Your task to perform on an android device: manage bookmarks in the chrome app Image 0: 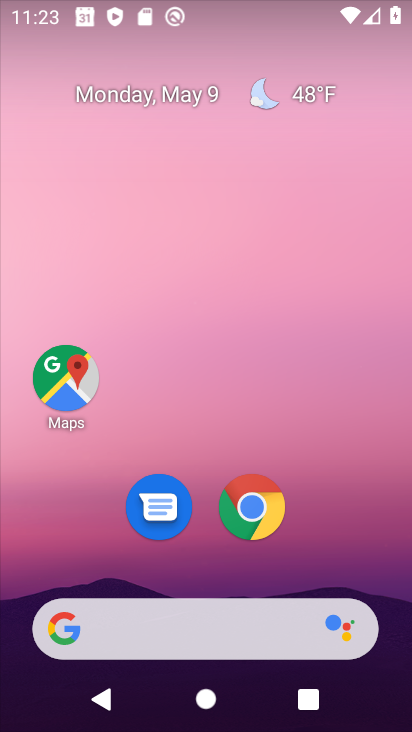
Step 0: click (261, 509)
Your task to perform on an android device: manage bookmarks in the chrome app Image 1: 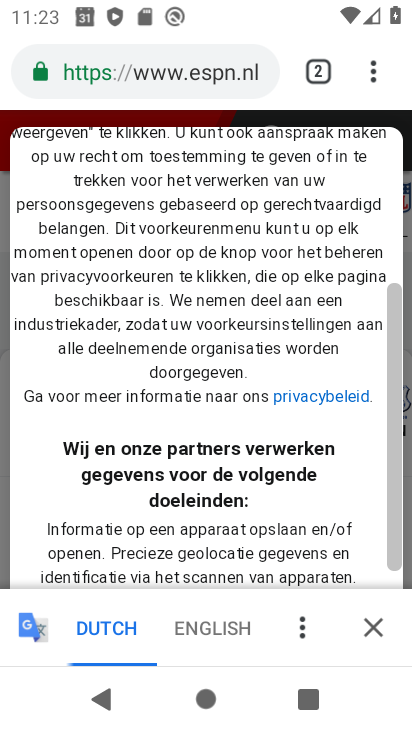
Step 1: click (381, 69)
Your task to perform on an android device: manage bookmarks in the chrome app Image 2: 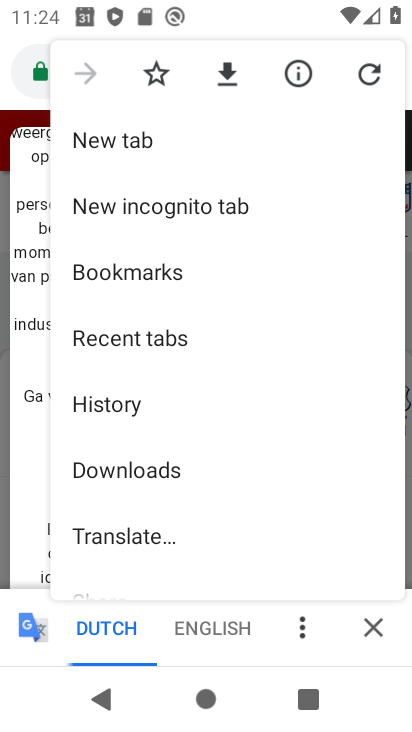
Step 2: click (137, 273)
Your task to perform on an android device: manage bookmarks in the chrome app Image 3: 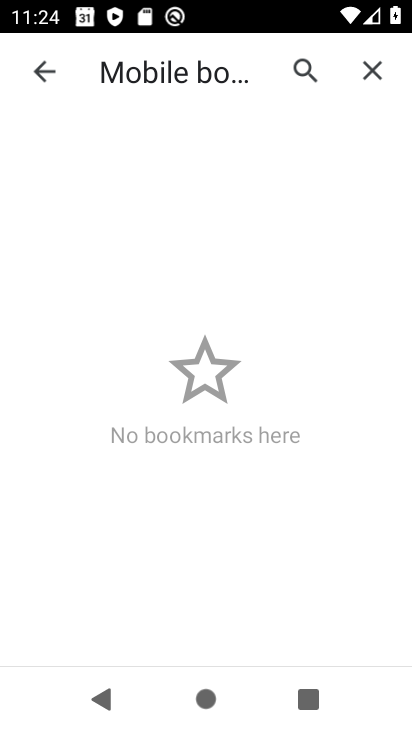
Step 3: task complete